Your task to perform on an android device: What's on my calendar today? Image 0: 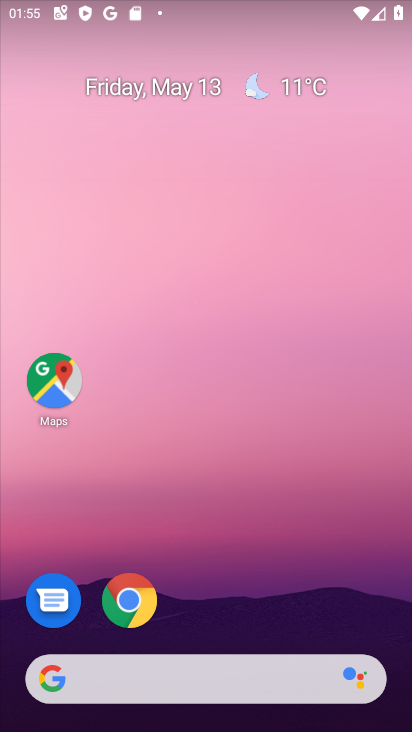
Step 0: drag from (188, 610) to (179, 118)
Your task to perform on an android device: What's on my calendar today? Image 1: 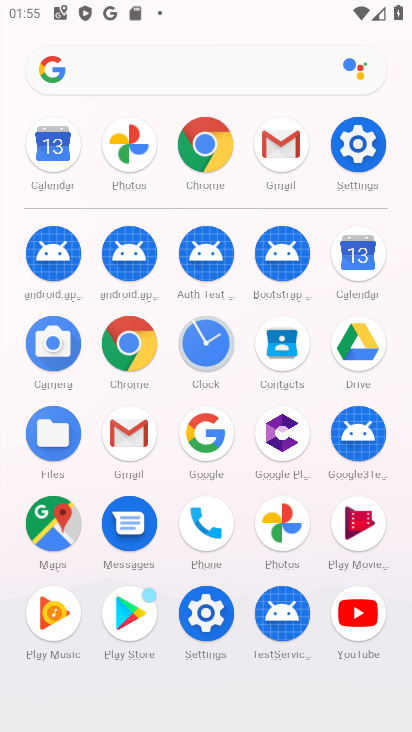
Step 1: click (354, 257)
Your task to perform on an android device: What's on my calendar today? Image 2: 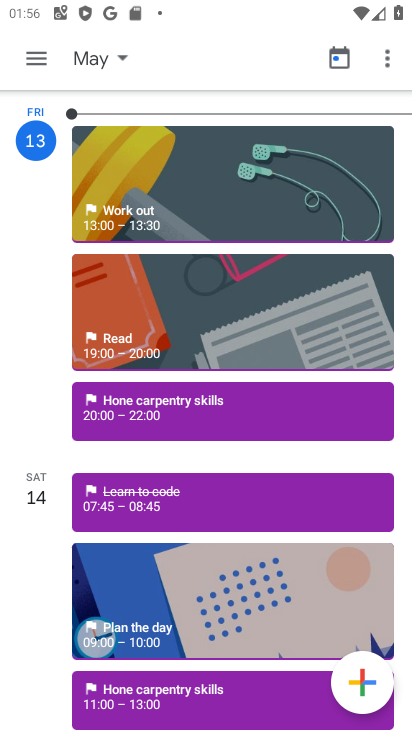
Step 2: click (115, 62)
Your task to perform on an android device: What's on my calendar today? Image 3: 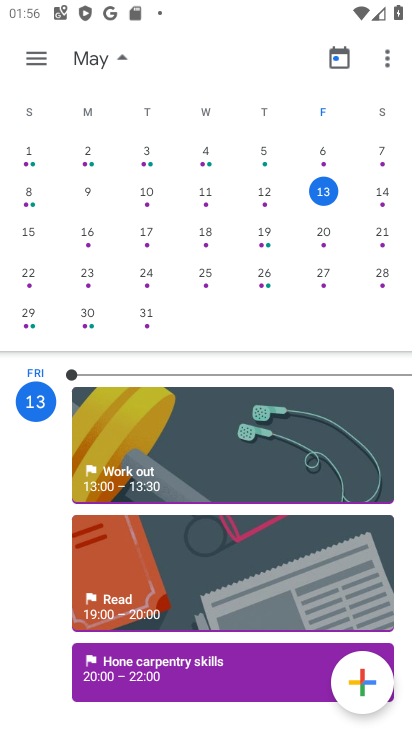
Step 3: click (327, 201)
Your task to perform on an android device: What's on my calendar today? Image 4: 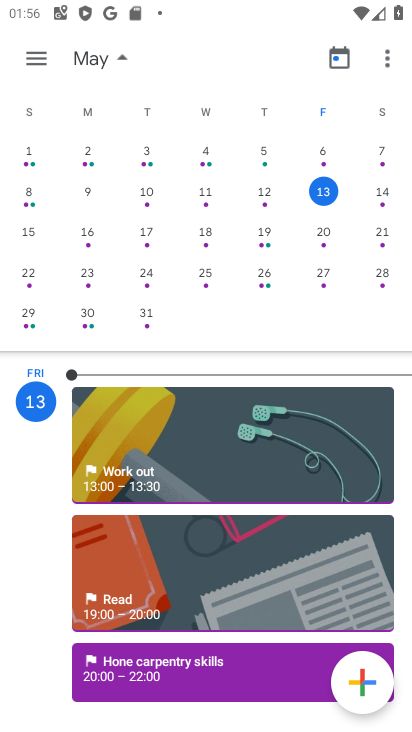
Step 4: task complete